Your task to perform on an android device: uninstall "Microsoft Outlook" Image 0: 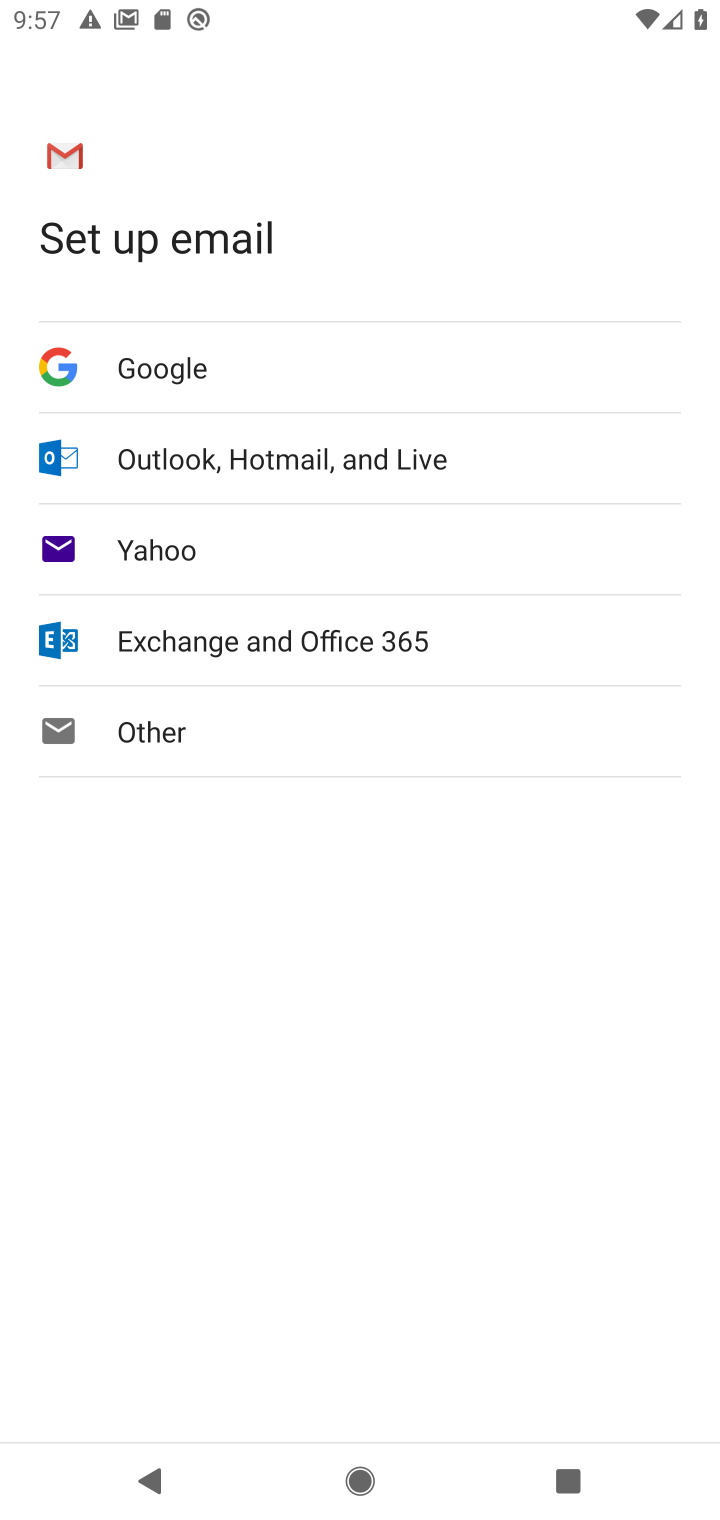
Step 0: press home button
Your task to perform on an android device: uninstall "Microsoft Outlook" Image 1: 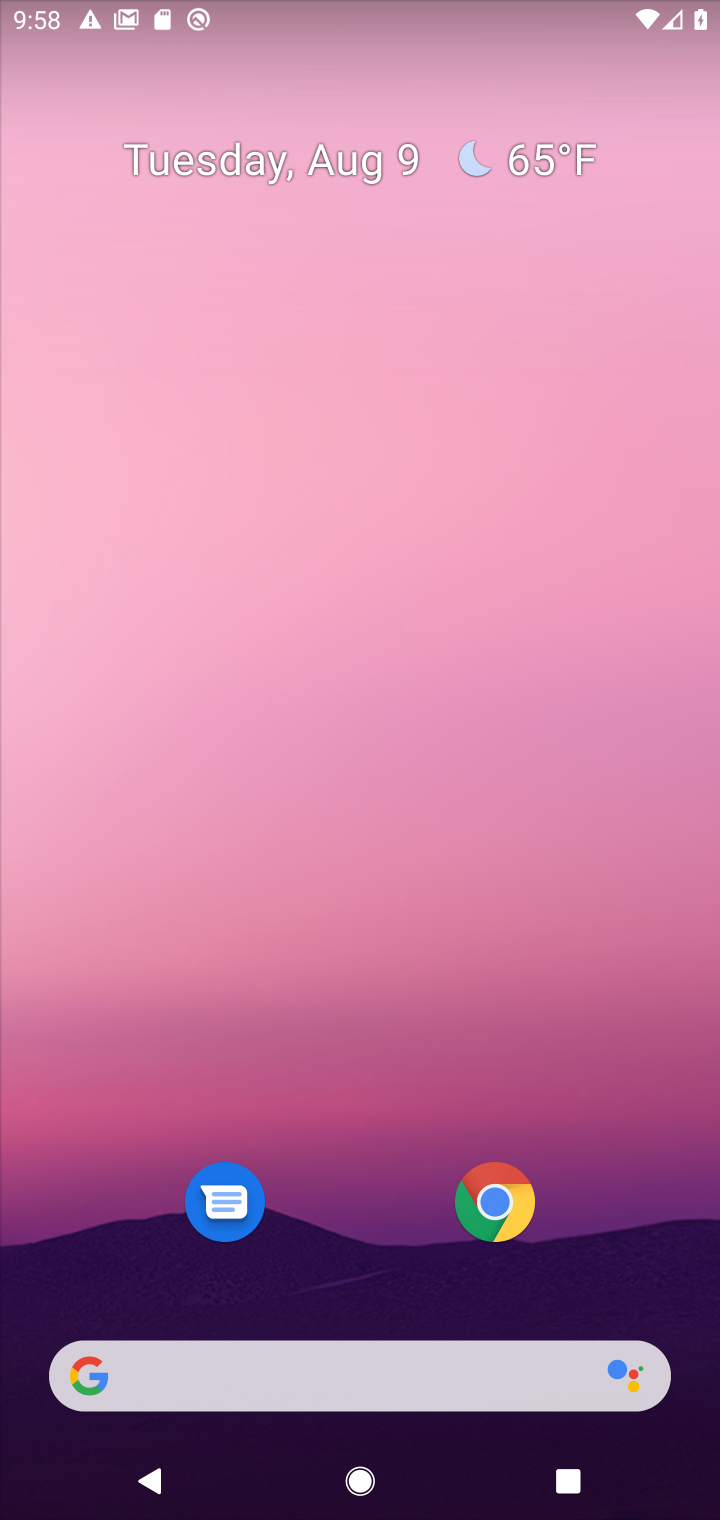
Step 1: drag from (390, 1366) to (322, 117)
Your task to perform on an android device: uninstall "Microsoft Outlook" Image 2: 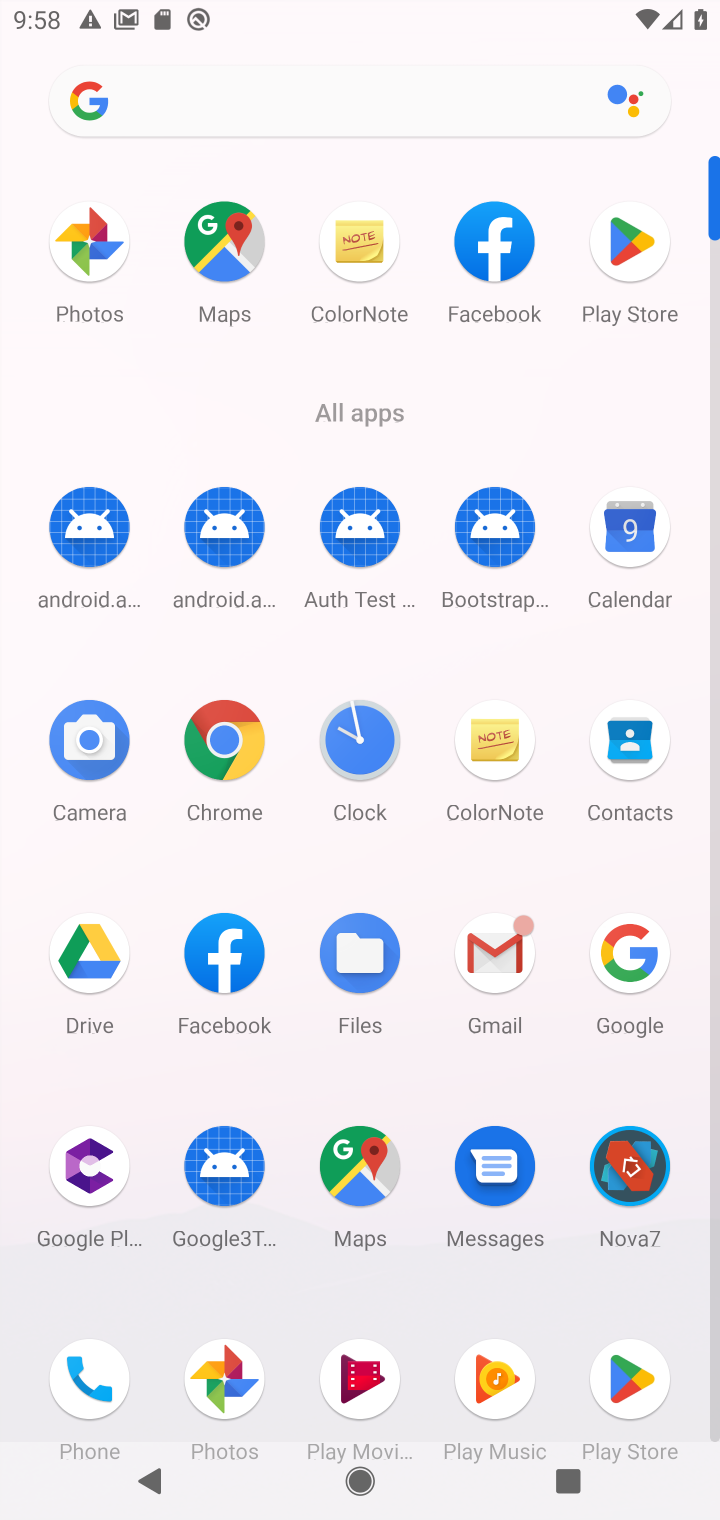
Step 2: click (619, 1376)
Your task to perform on an android device: uninstall "Microsoft Outlook" Image 3: 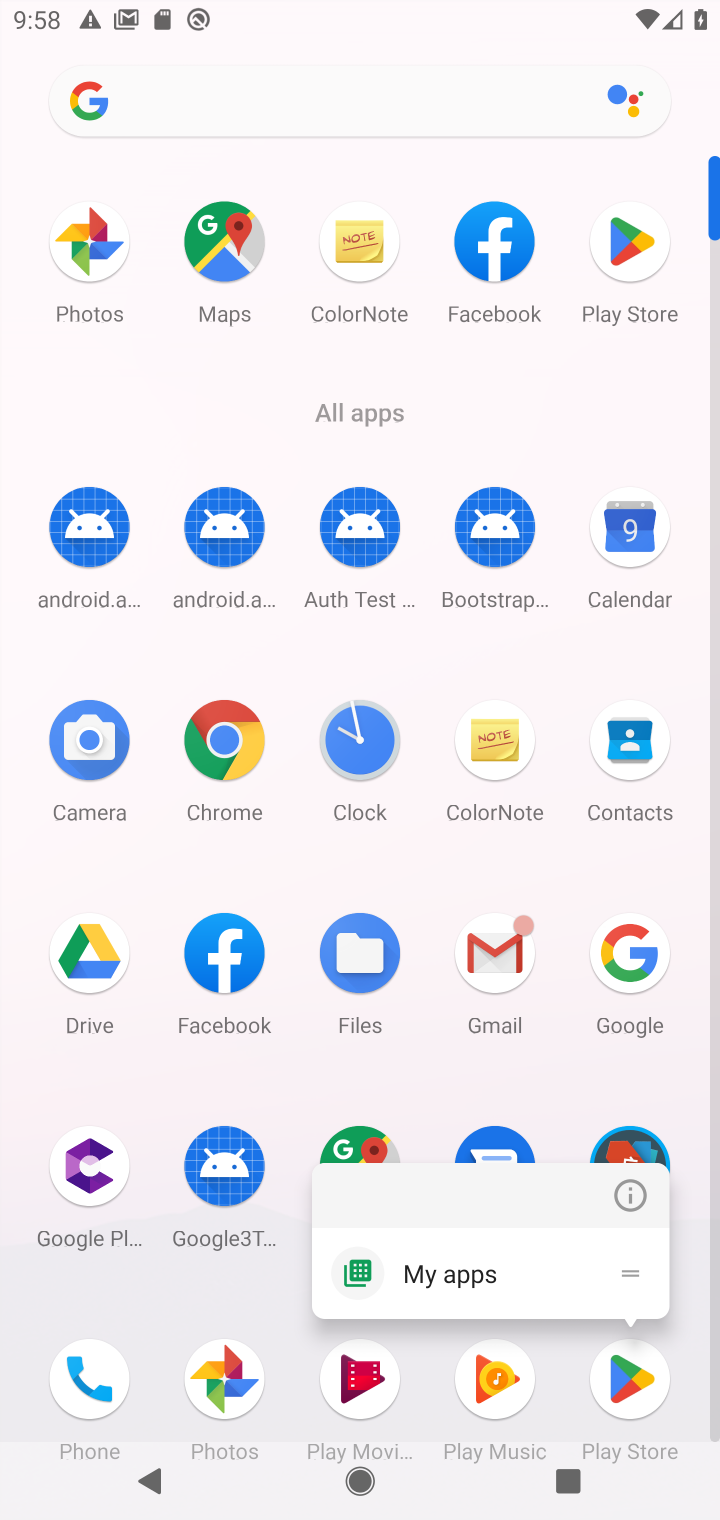
Step 3: click (622, 1371)
Your task to perform on an android device: uninstall "Microsoft Outlook" Image 4: 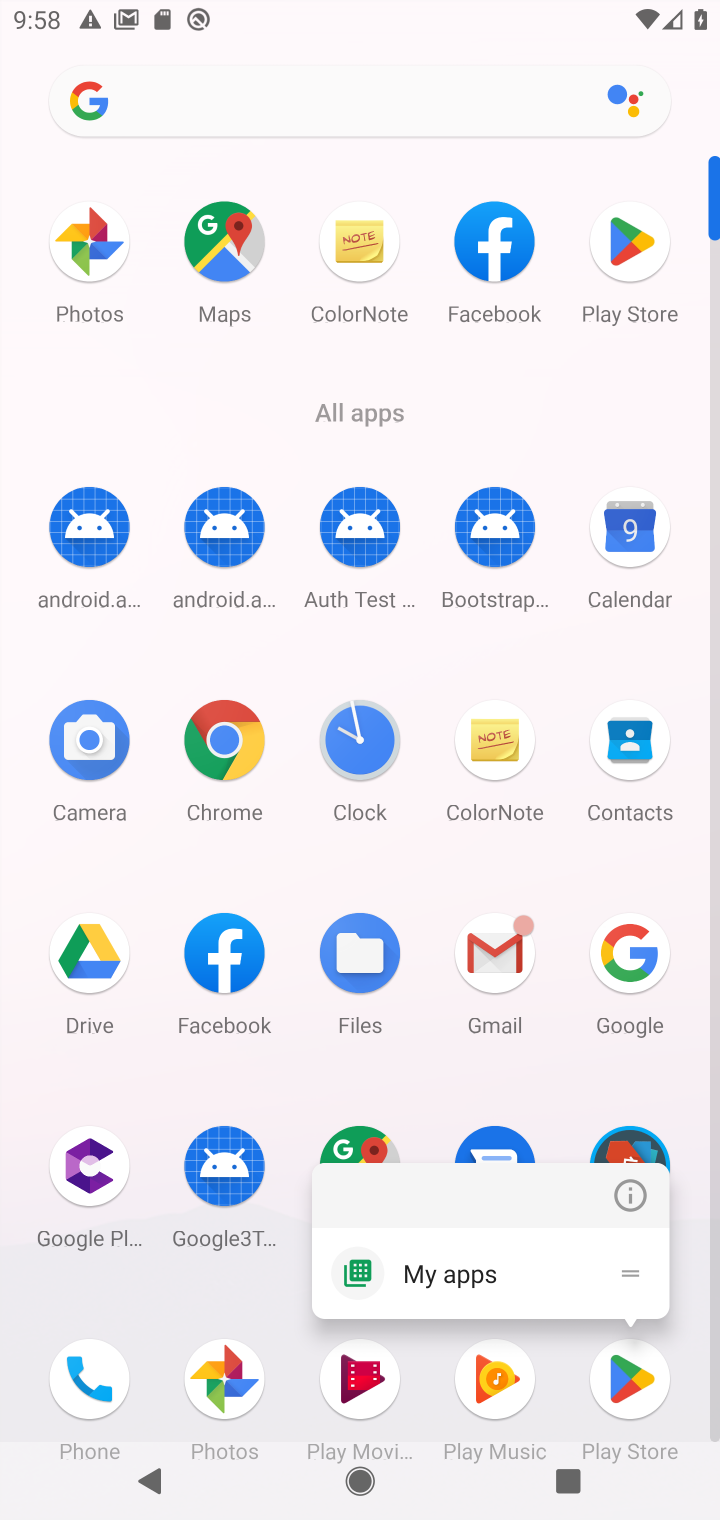
Step 4: click (622, 1371)
Your task to perform on an android device: uninstall "Microsoft Outlook" Image 5: 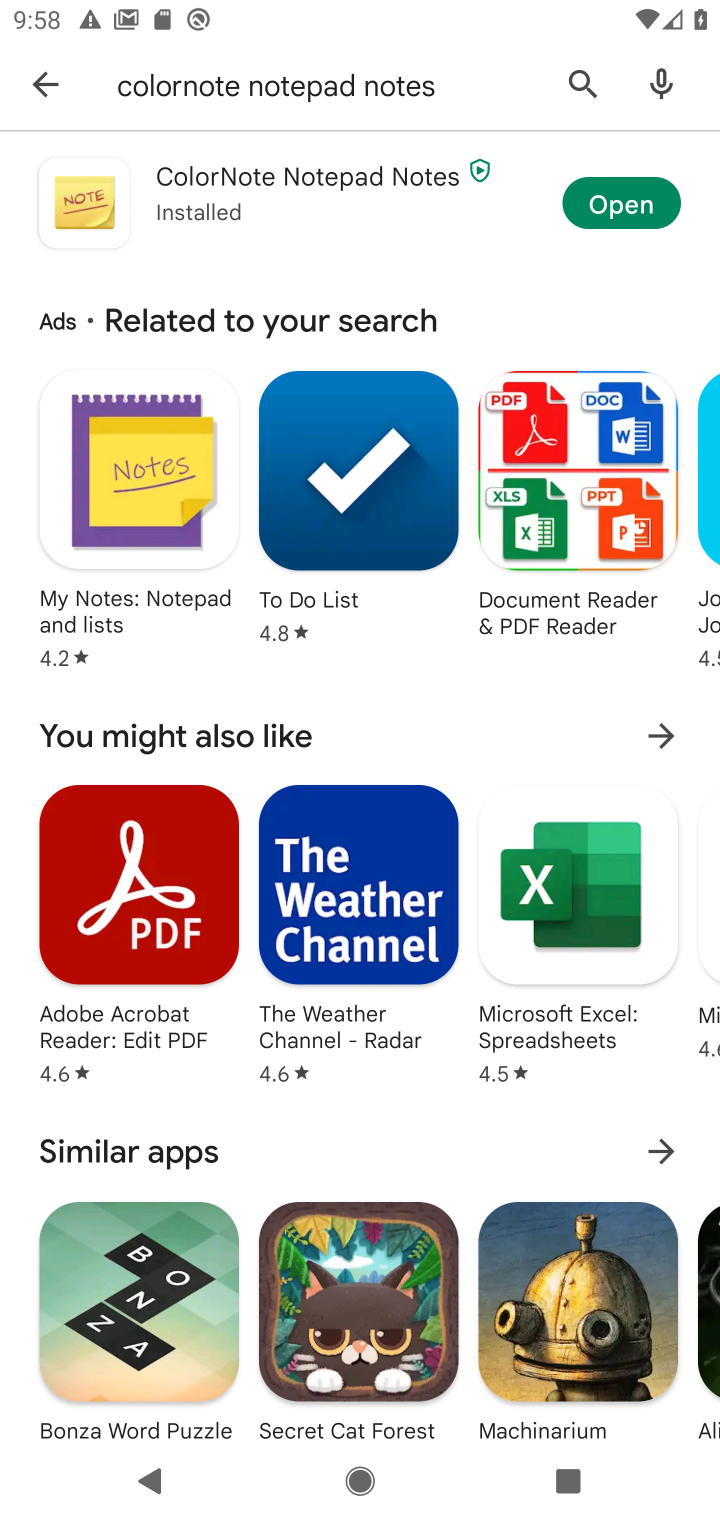
Step 5: click (568, 88)
Your task to perform on an android device: uninstall "Microsoft Outlook" Image 6: 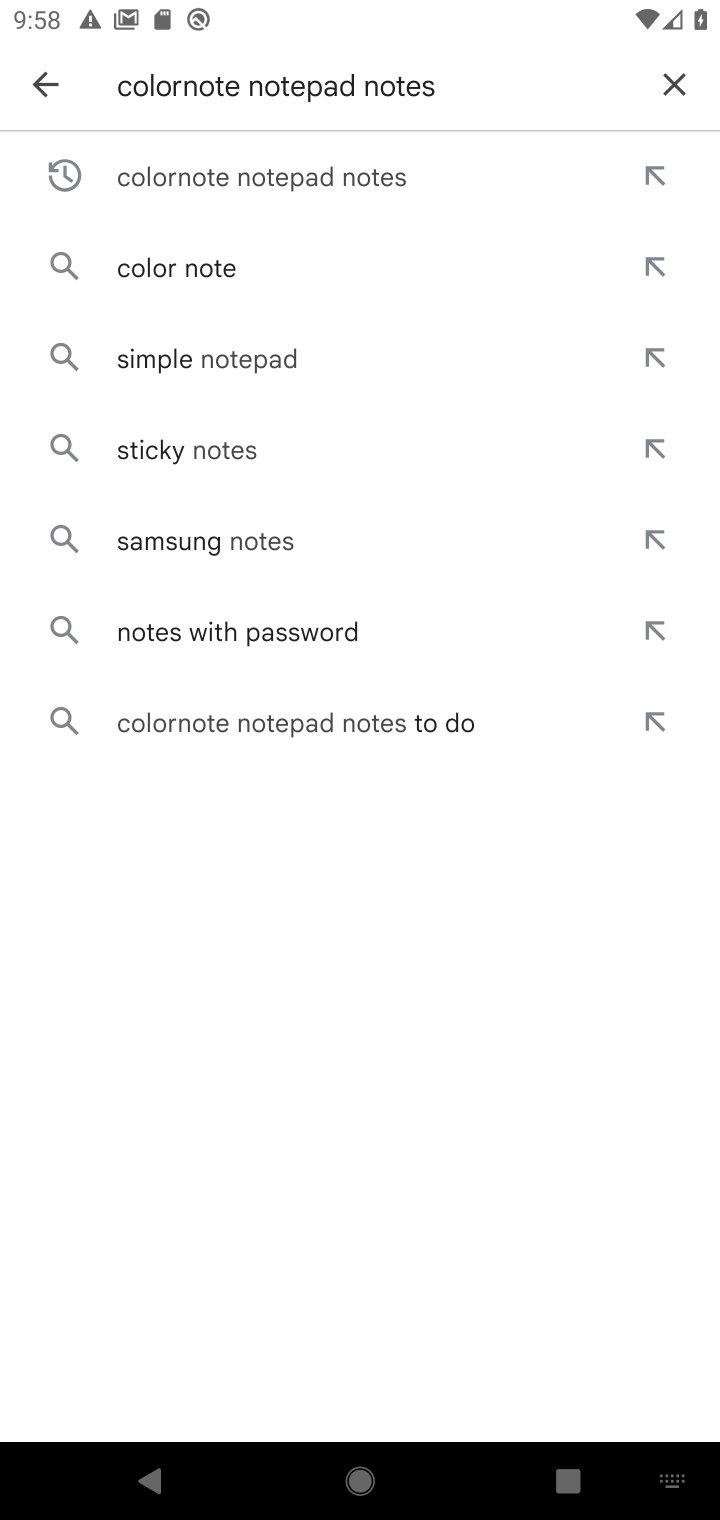
Step 6: click (683, 98)
Your task to perform on an android device: uninstall "Microsoft Outlook" Image 7: 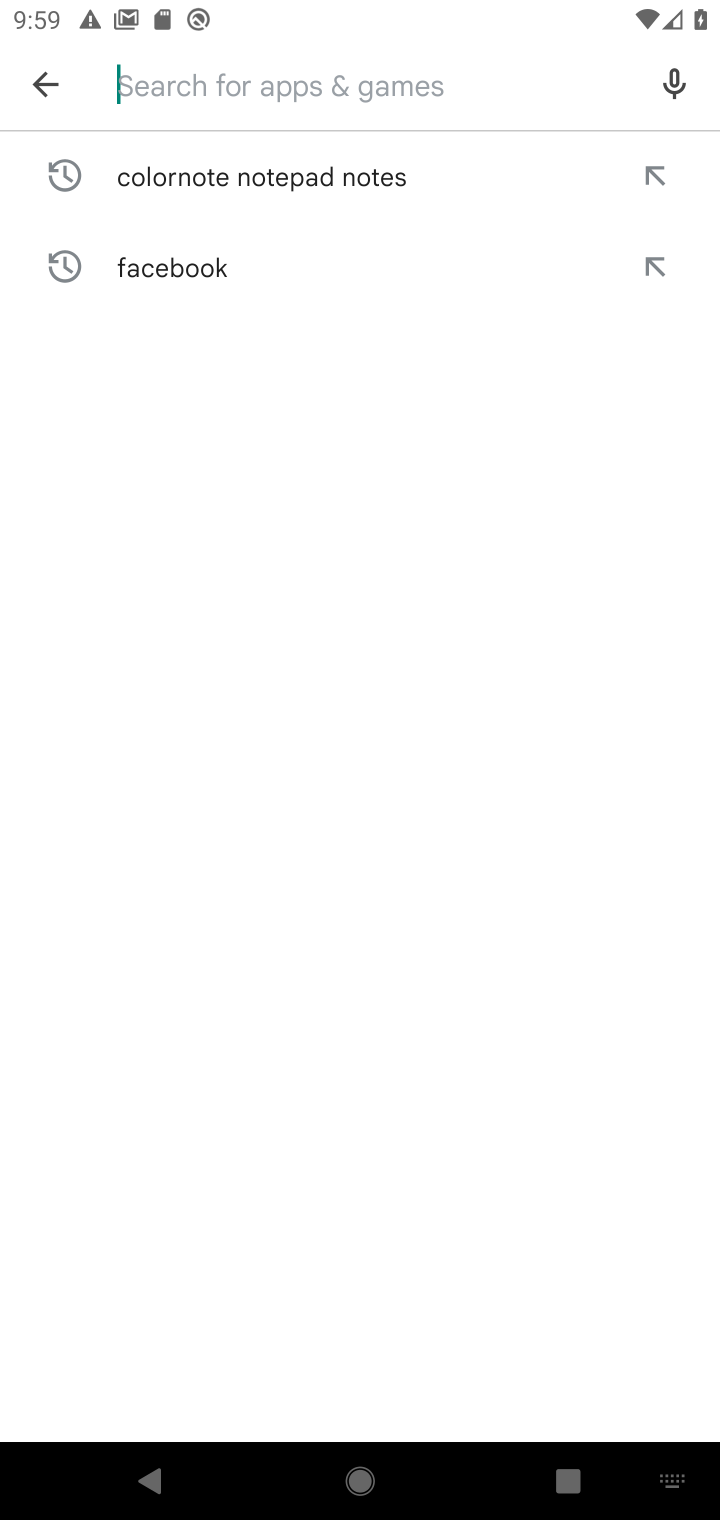
Step 7: type "Microsoft Outlook"
Your task to perform on an android device: uninstall "Microsoft Outlook" Image 8: 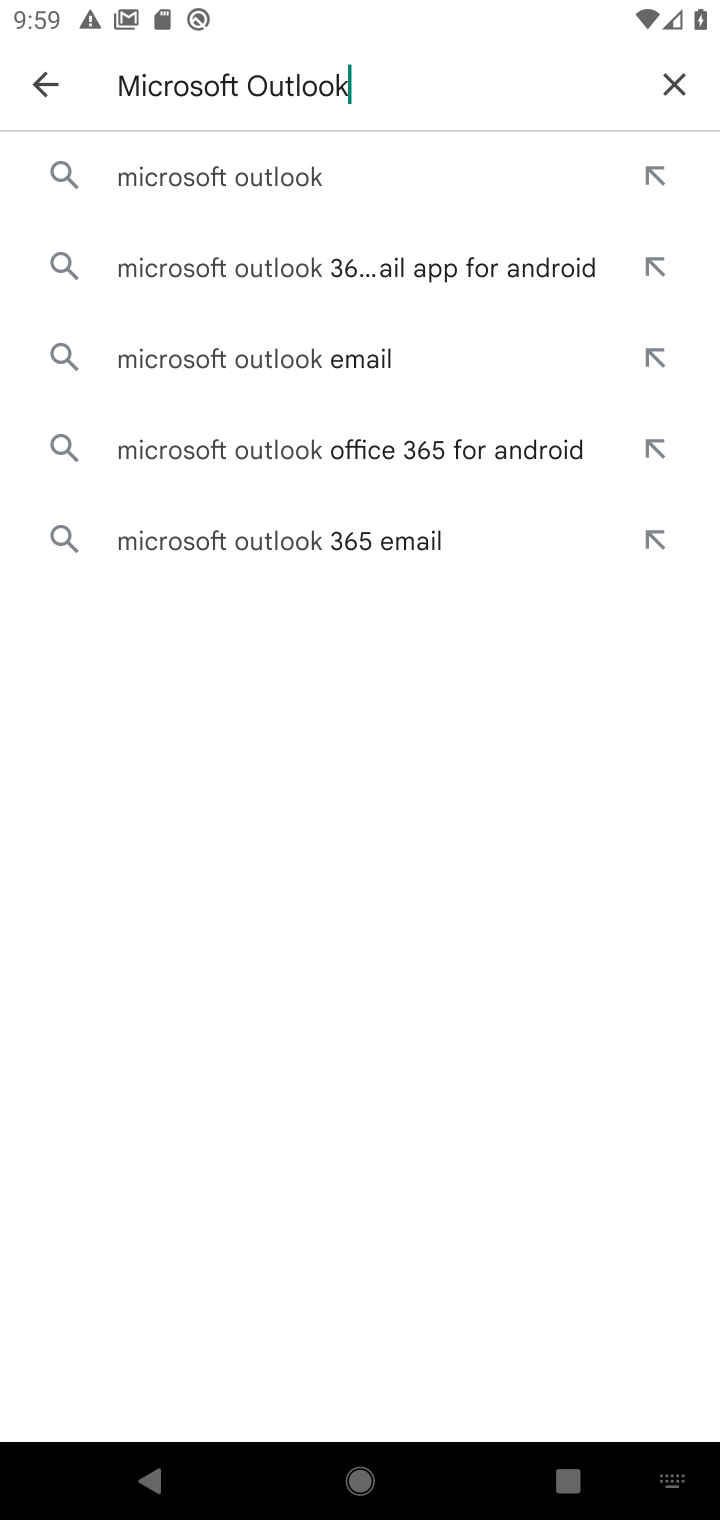
Step 8: click (267, 205)
Your task to perform on an android device: uninstall "Microsoft Outlook" Image 9: 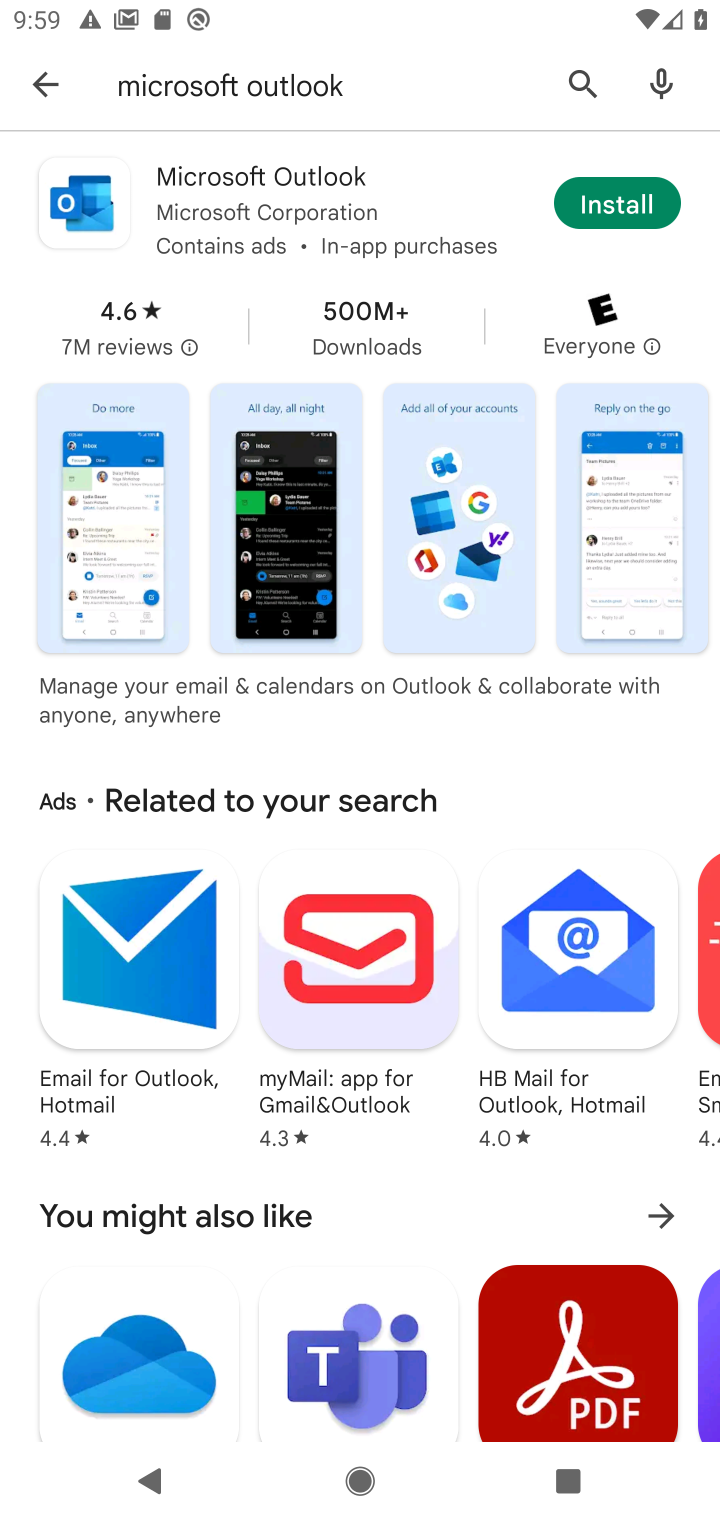
Step 9: task complete